Your task to perform on an android device: change your default location settings in chrome Image 0: 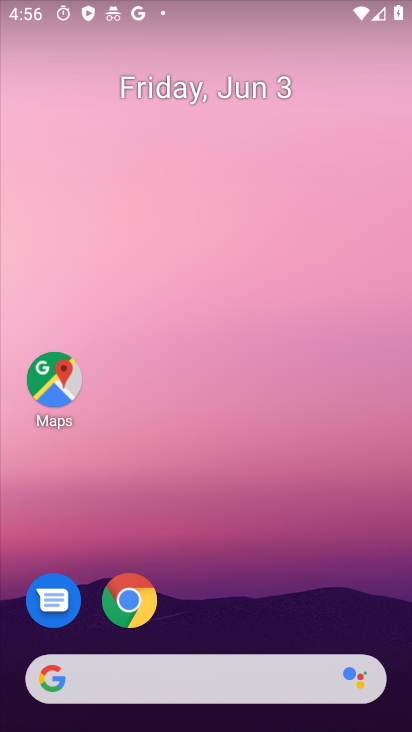
Step 0: click (143, 588)
Your task to perform on an android device: change your default location settings in chrome Image 1: 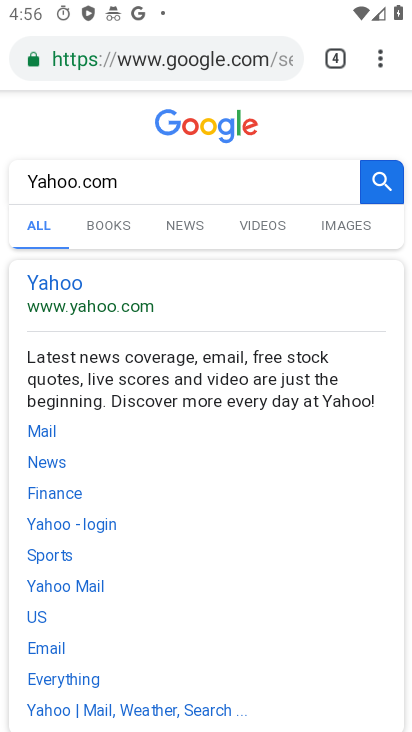
Step 1: click (381, 63)
Your task to perform on an android device: change your default location settings in chrome Image 2: 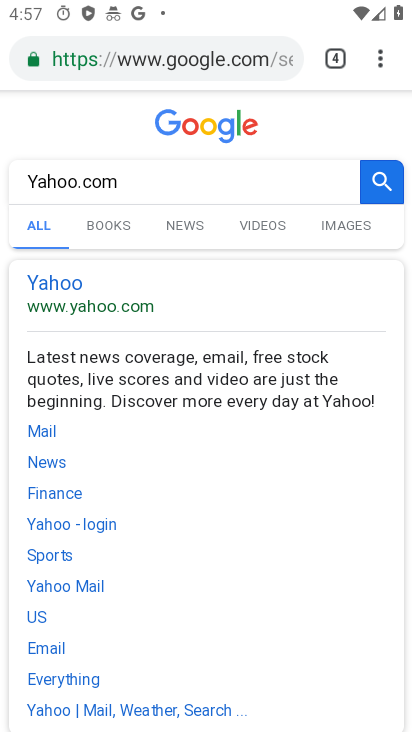
Step 2: click (383, 42)
Your task to perform on an android device: change your default location settings in chrome Image 3: 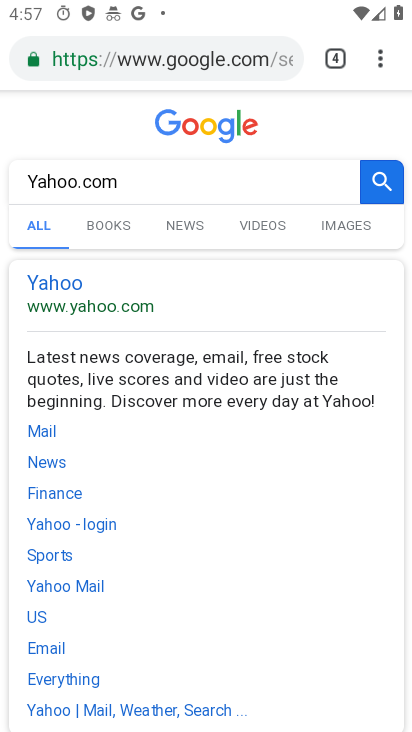
Step 3: click (380, 55)
Your task to perform on an android device: change your default location settings in chrome Image 4: 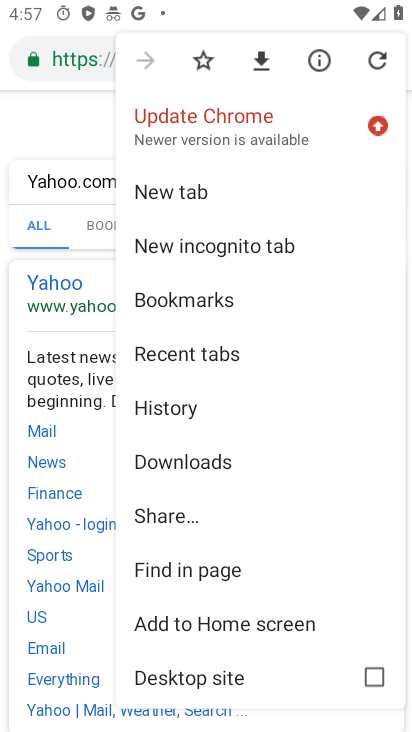
Step 4: drag from (316, 667) to (273, 347)
Your task to perform on an android device: change your default location settings in chrome Image 5: 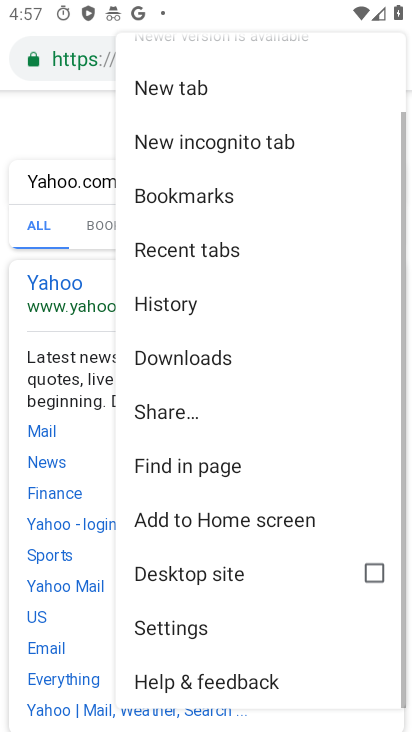
Step 5: click (166, 631)
Your task to perform on an android device: change your default location settings in chrome Image 6: 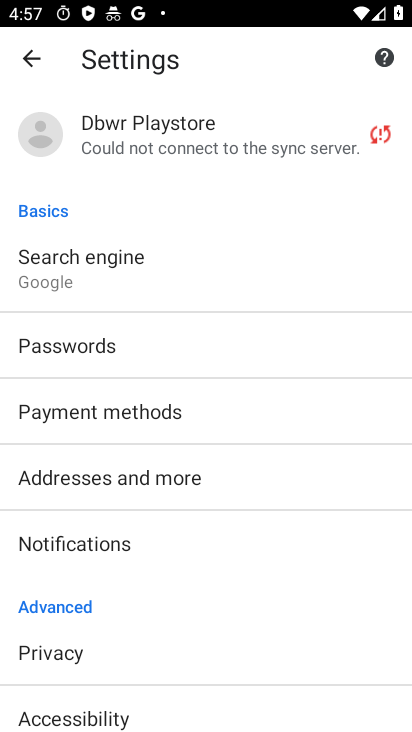
Step 6: drag from (190, 680) to (173, 375)
Your task to perform on an android device: change your default location settings in chrome Image 7: 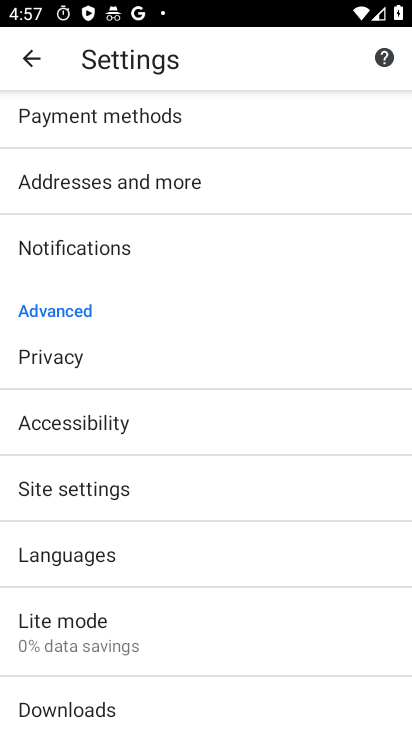
Step 7: drag from (210, 571) to (210, 334)
Your task to perform on an android device: change your default location settings in chrome Image 8: 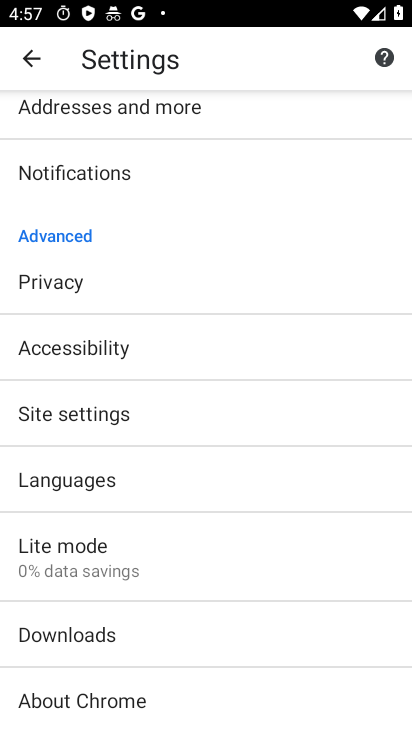
Step 8: click (96, 414)
Your task to perform on an android device: change your default location settings in chrome Image 9: 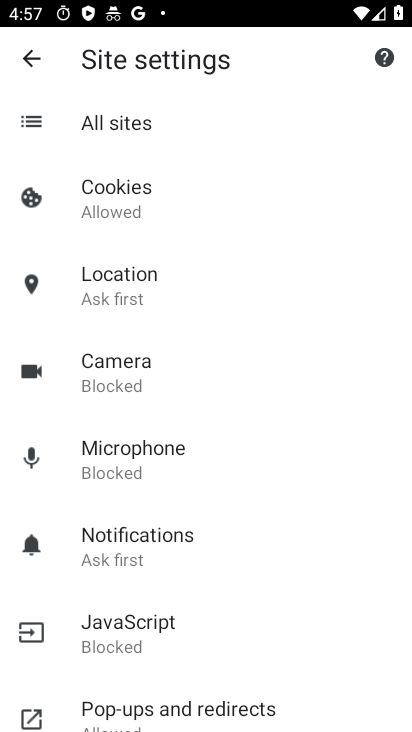
Step 9: click (112, 273)
Your task to perform on an android device: change your default location settings in chrome Image 10: 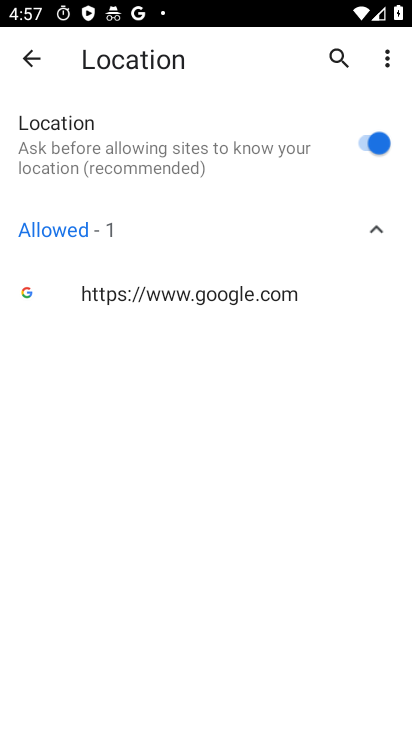
Step 10: click (359, 144)
Your task to perform on an android device: change your default location settings in chrome Image 11: 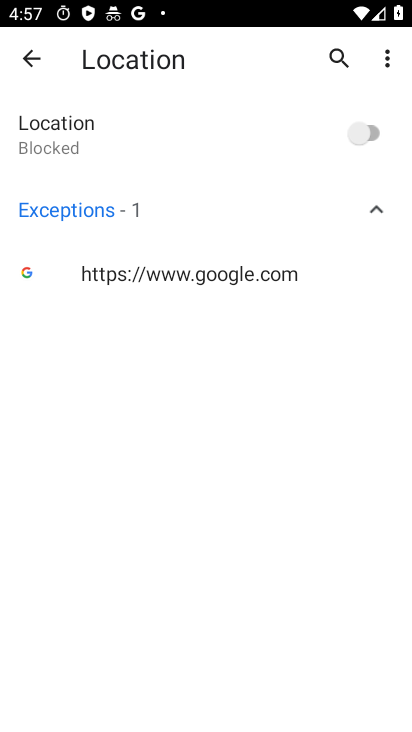
Step 11: task complete